Your task to perform on an android device: find snoozed emails in the gmail app Image 0: 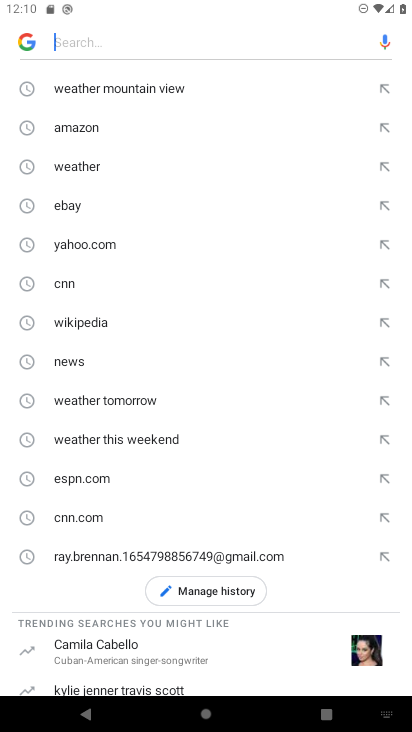
Step 0: press back button
Your task to perform on an android device: find snoozed emails in the gmail app Image 1: 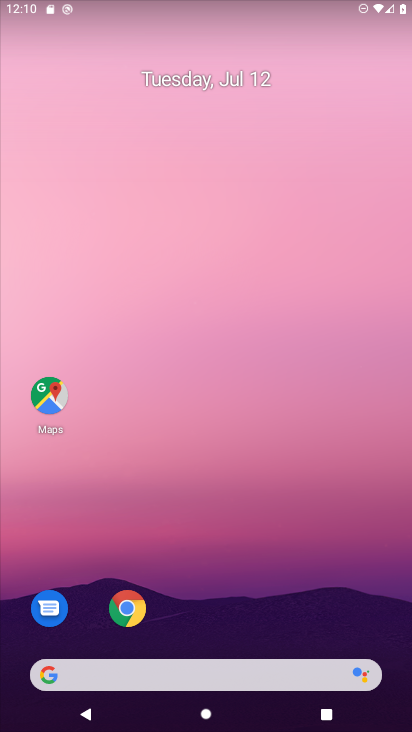
Step 1: drag from (184, 629) to (166, 3)
Your task to perform on an android device: find snoozed emails in the gmail app Image 2: 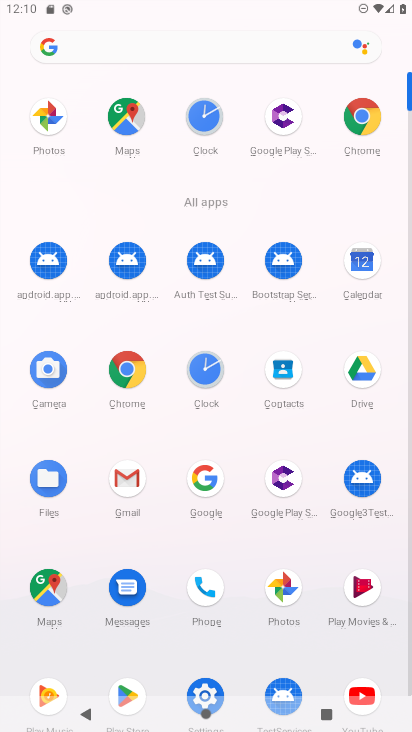
Step 2: click (120, 490)
Your task to perform on an android device: find snoozed emails in the gmail app Image 3: 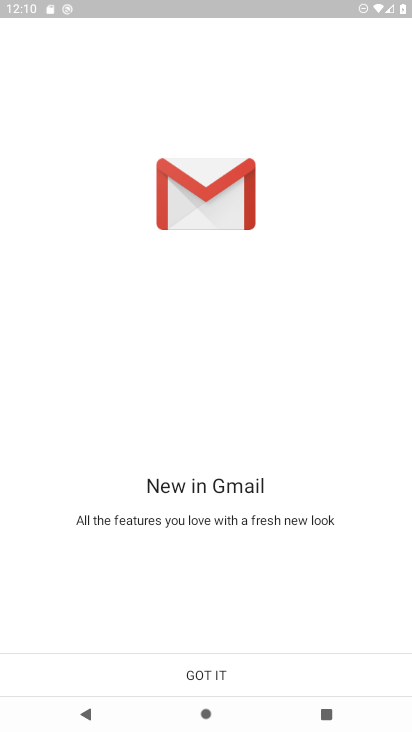
Step 3: click (217, 681)
Your task to perform on an android device: find snoozed emails in the gmail app Image 4: 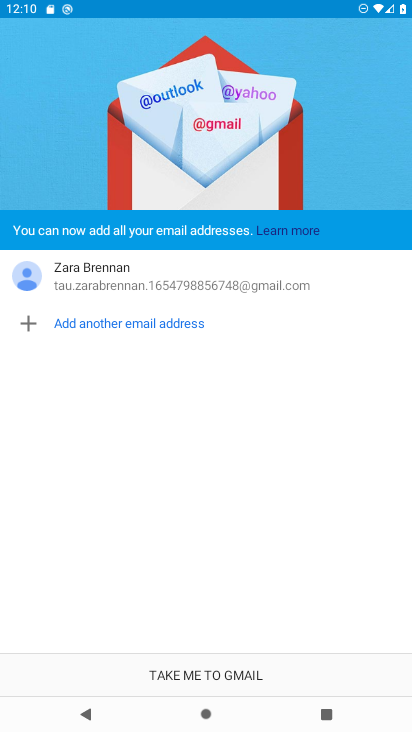
Step 4: click (158, 628)
Your task to perform on an android device: find snoozed emails in the gmail app Image 5: 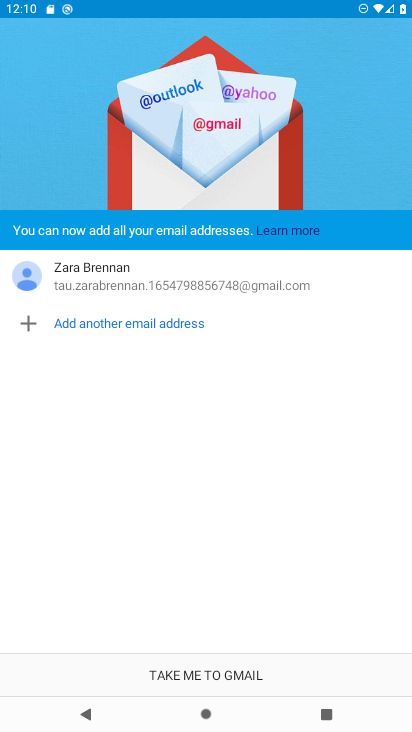
Step 5: click (177, 680)
Your task to perform on an android device: find snoozed emails in the gmail app Image 6: 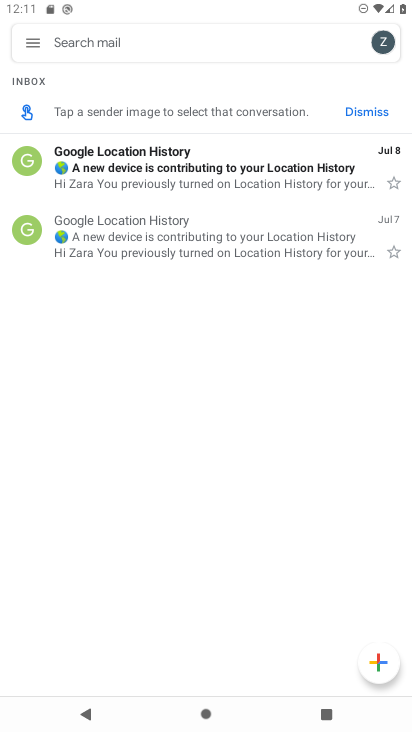
Step 6: click (36, 43)
Your task to perform on an android device: find snoozed emails in the gmail app Image 7: 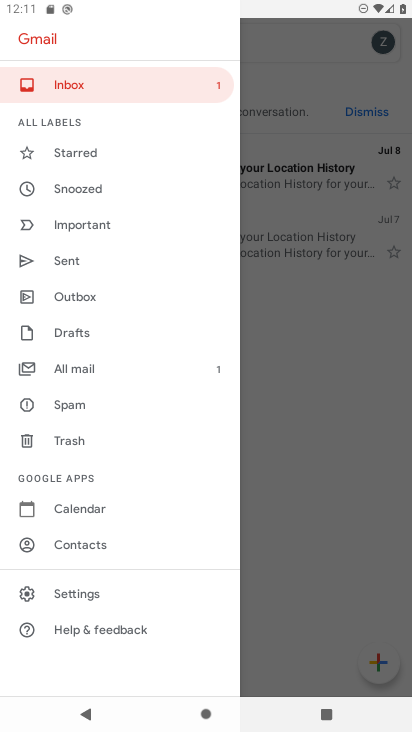
Step 7: click (64, 185)
Your task to perform on an android device: find snoozed emails in the gmail app Image 8: 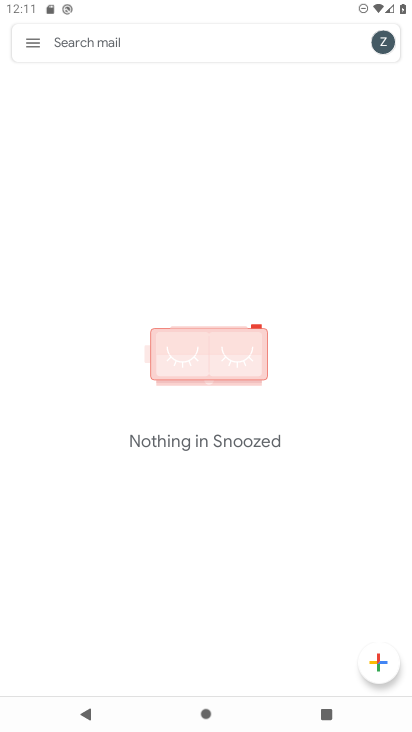
Step 8: task complete